Your task to perform on an android device: Open Yahoo.com Image 0: 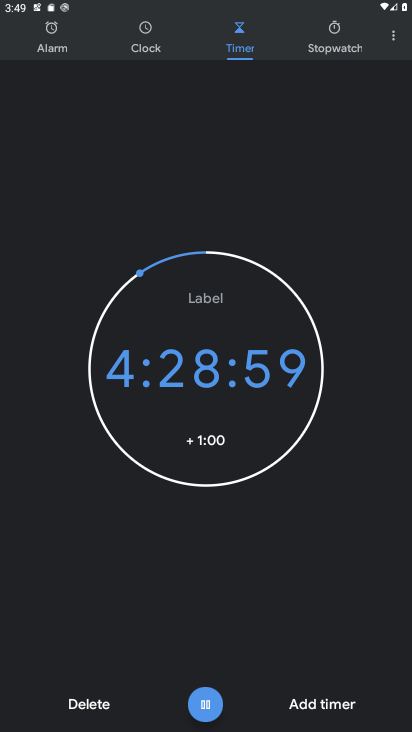
Step 0: press home button
Your task to perform on an android device: Open Yahoo.com Image 1: 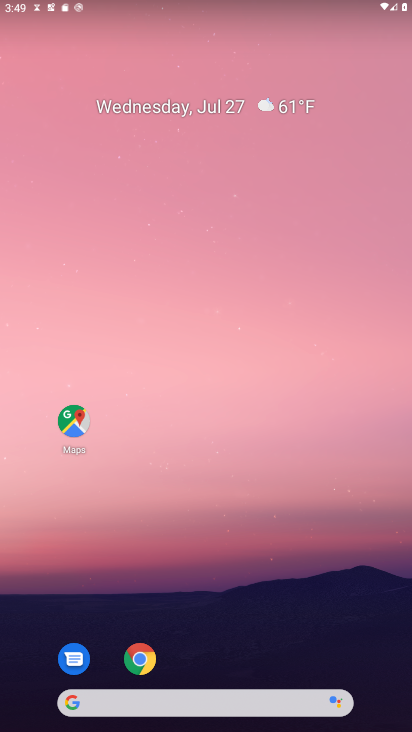
Step 1: drag from (221, 683) to (187, 177)
Your task to perform on an android device: Open Yahoo.com Image 2: 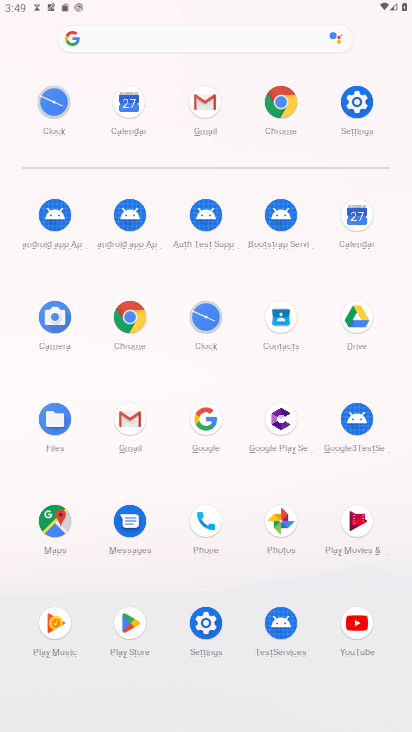
Step 2: click (280, 122)
Your task to perform on an android device: Open Yahoo.com Image 3: 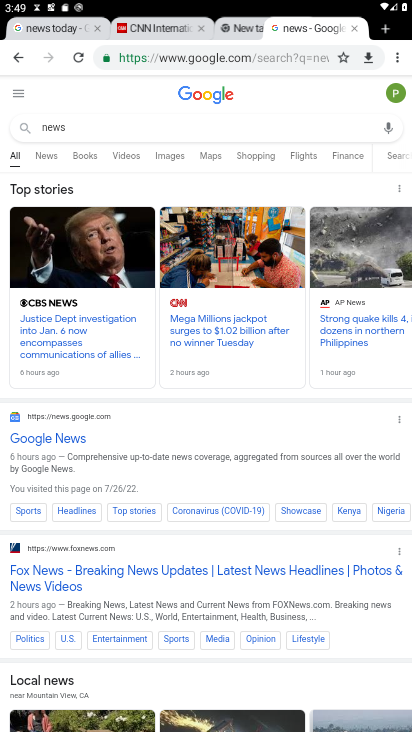
Step 3: click (211, 59)
Your task to perform on an android device: Open Yahoo.com Image 4: 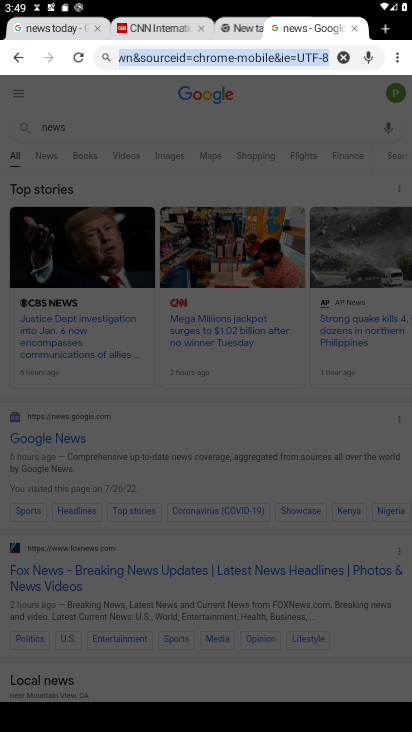
Step 4: type "yahoo.com"
Your task to perform on an android device: Open Yahoo.com Image 5: 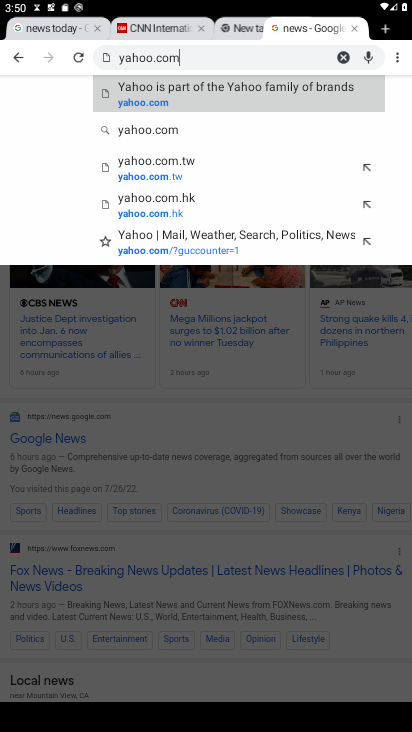
Step 5: click (240, 103)
Your task to perform on an android device: Open Yahoo.com Image 6: 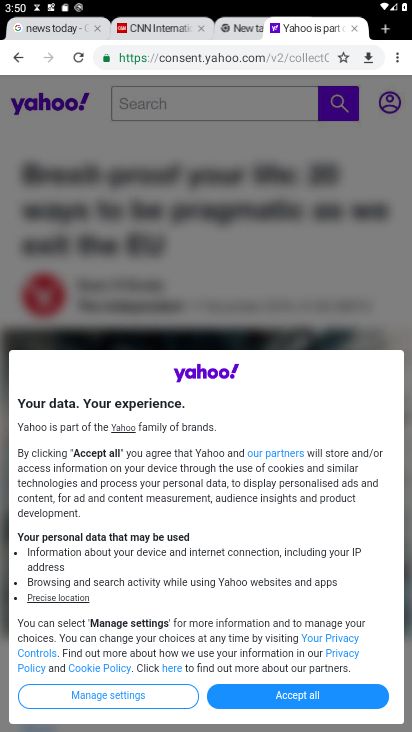
Step 6: task complete